Your task to perform on an android device: Search for Mexican restaurants on Maps Image 0: 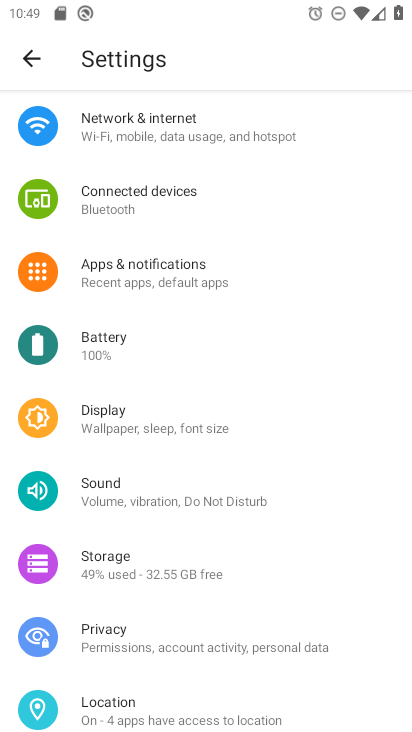
Step 0: press home button
Your task to perform on an android device: Search for Mexican restaurants on Maps Image 1: 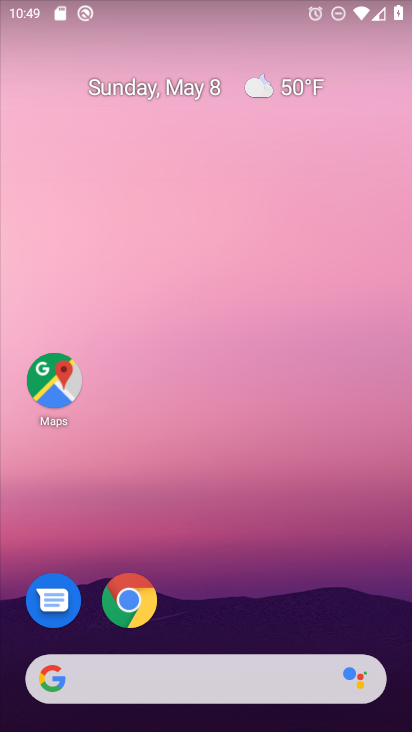
Step 1: drag from (208, 724) to (197, 266)
Your task to perform on an android device: Search for Mexican restaurants on Maps Image 2: 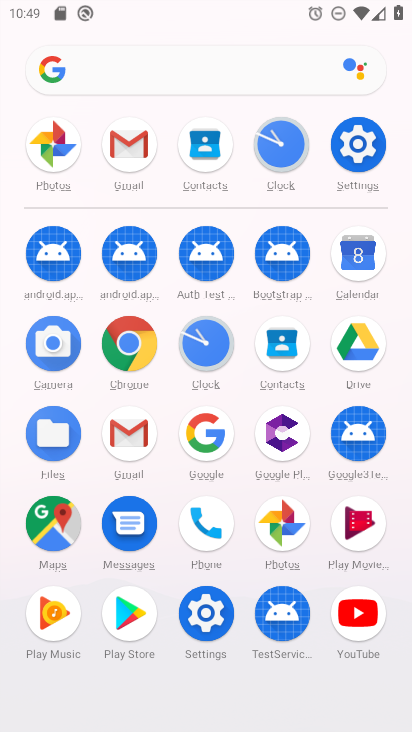
Step 2: click (60, 518)
Your task to perform on an android device: Search for Mexican restaurants on Maps Image 3: 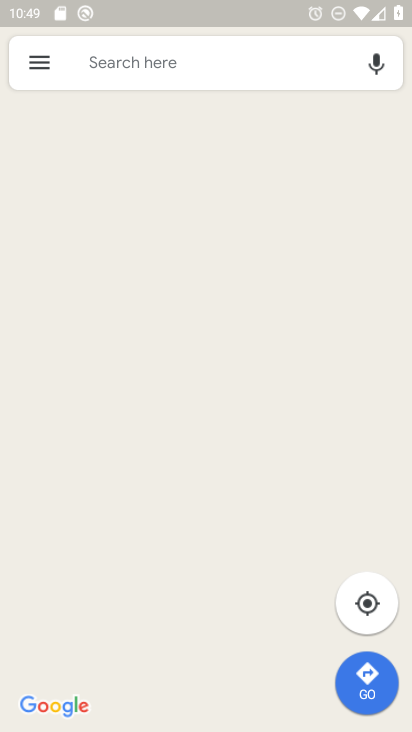
Step 3: click (230, 58)
Your task to perform on an android device: Search for Mexican restaurants on Maps Image 4: 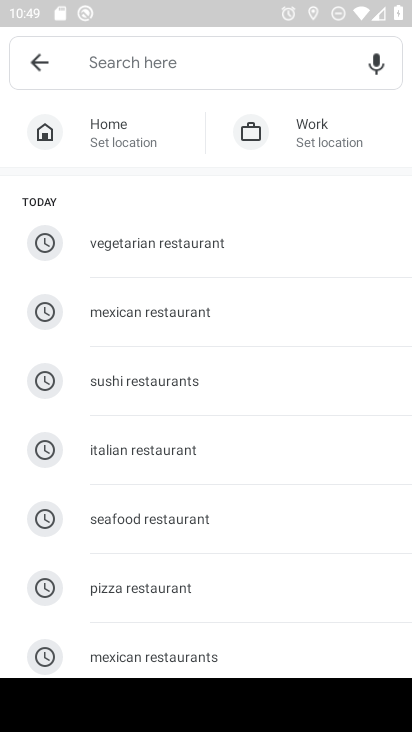
Step 4: type "Mexican restaurants"
Your task to perform on an android device: Search for Mexican restaurants on Maps Image 5: 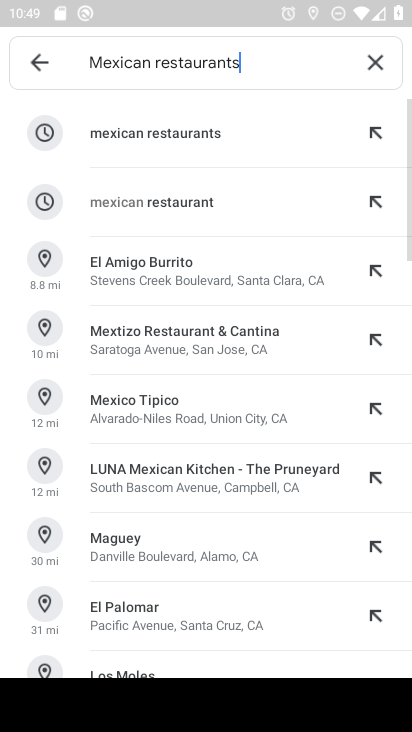
Step 5: click (126, 128)
Your task to perform on an android device: Search for Mexican restaurants on Maps Image 6: 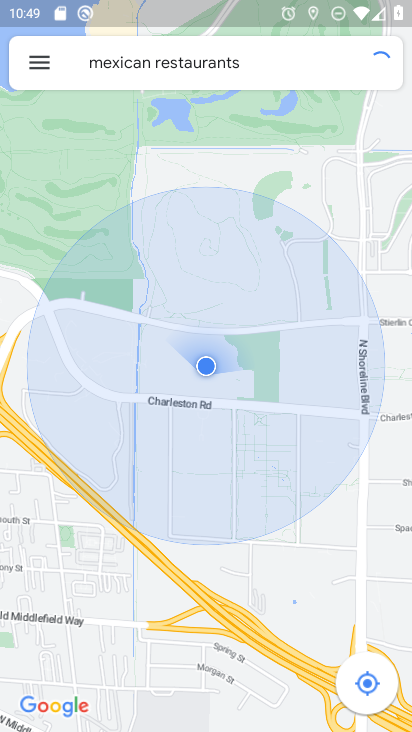
Step 6: task complete